Your task to perform on an android device: Go to notification settings Image 0: 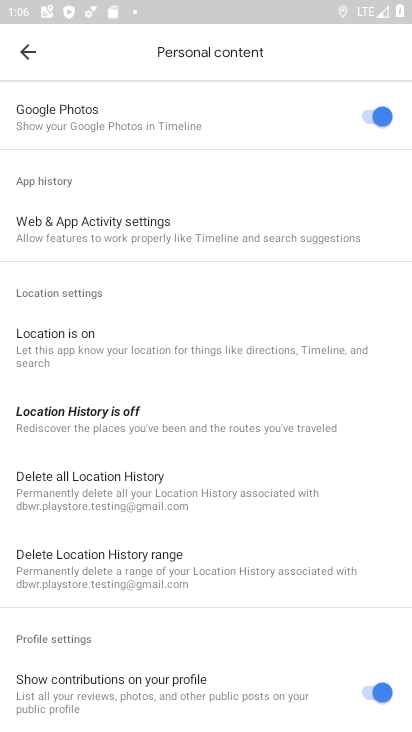
Step 0: press home button
Your task to perform on an android device: Go to notification settings Image 1: 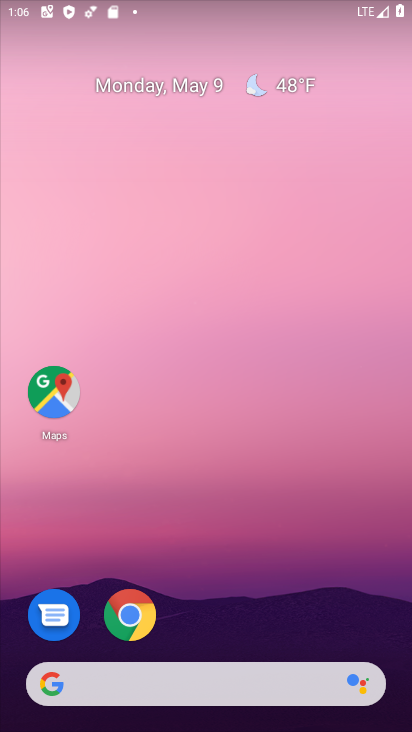
Step 1: drag from (376, 616) to (351, 19)
Your task to perform on an android device: Go to notification settings Image 2: 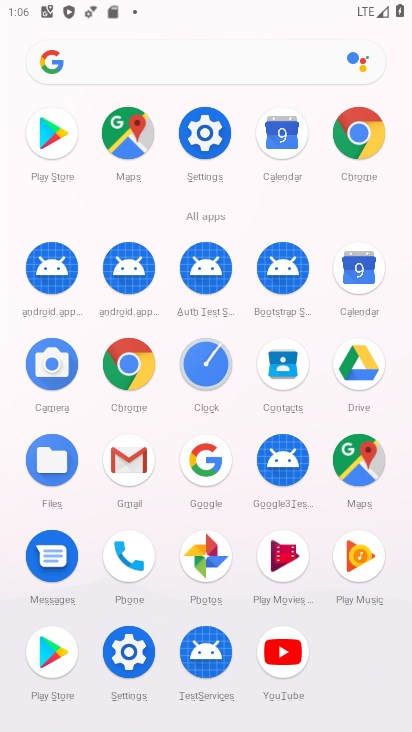
Step 2: click (126, 652)
Your task to perform on an android device: Go to notification settings Image 3: 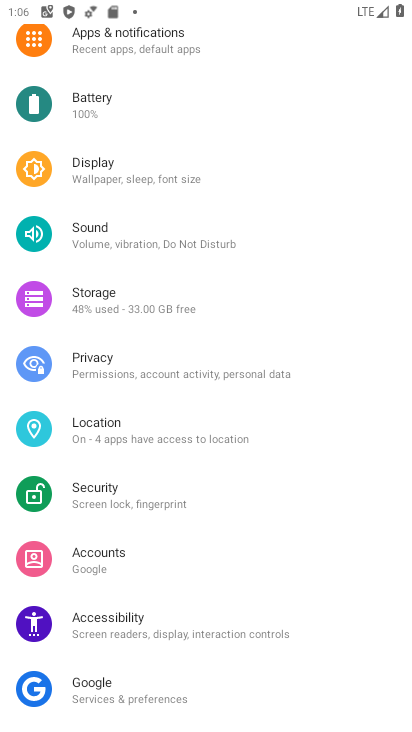
Step 3: click (119, 39)
Your task to perform on an android device: Go to notification settings Image 4: 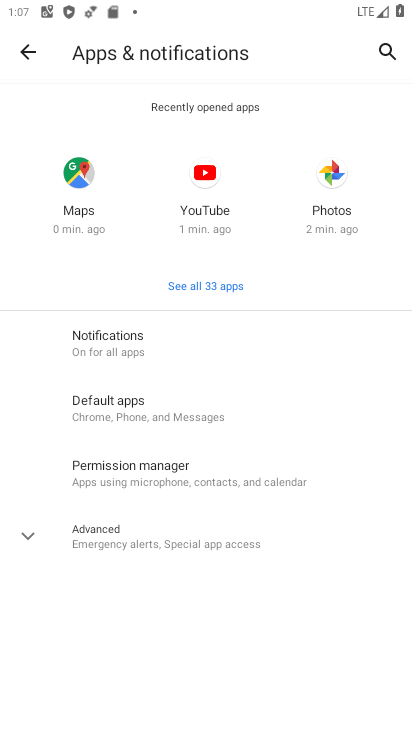
Step 4: click (108, 344)
Your task to perform on an android device: Go to notification settings Image 5: 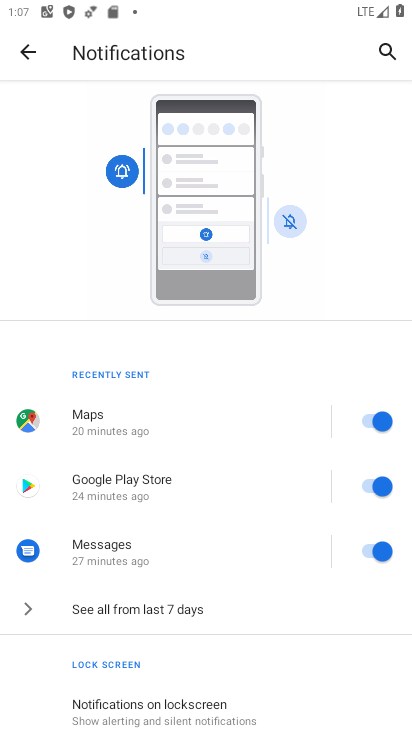
Step 5: drag from (331, 647) to (283, 136)
Your task to perform on an android device: Go to notification settings Image 6: 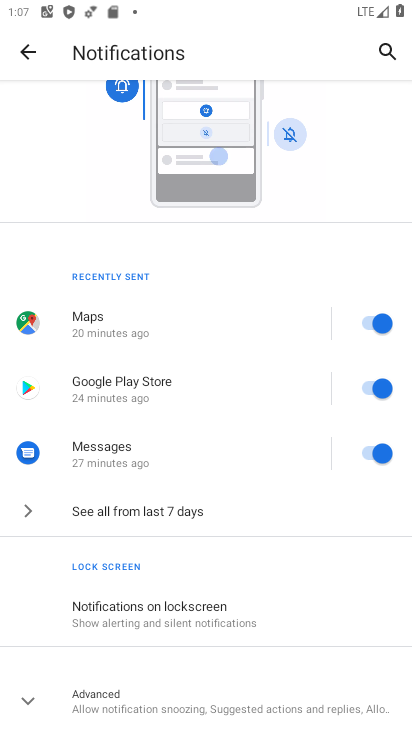
Step 6: click (24, 701)
Your task to perform on an android device: Go to notification settings Image 7: 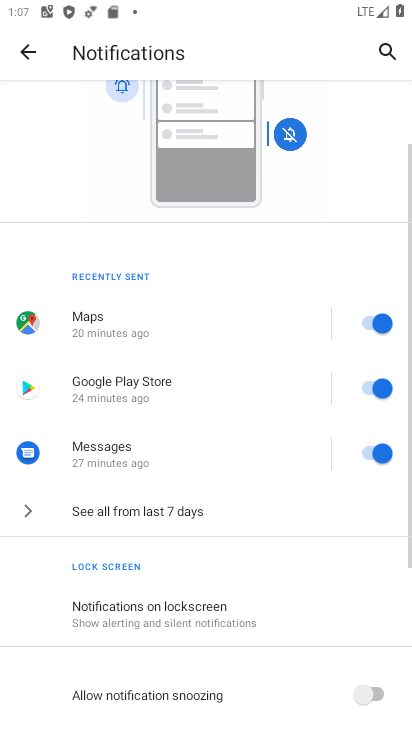
Step 7: task complete